Your task to perform on an android device: Open settings on Google Maps Image 0: 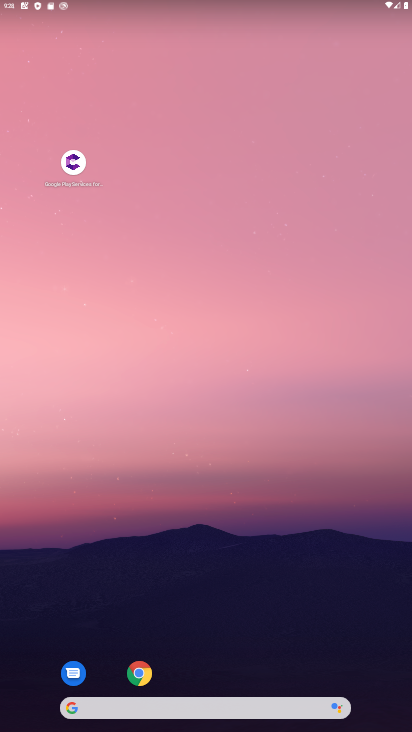
Step 0: drag from (312, 631) to (295, 0)
Your task to perform on an android device: Open settings on Google Maps Image 1: 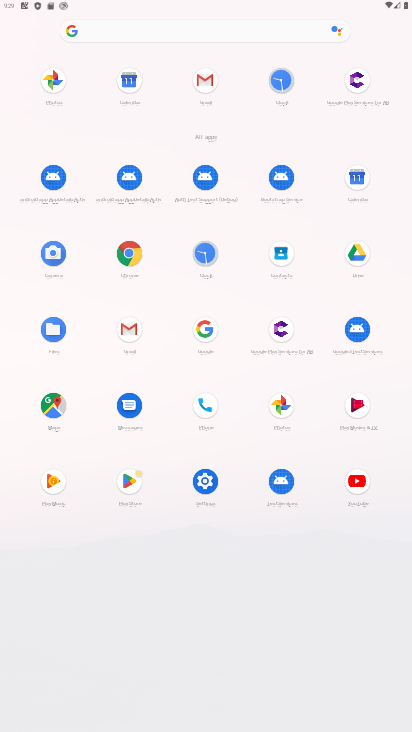
Step 1: click (212, 473)
Your task to perform on an android device: Open settings on Google Maps Image 2: 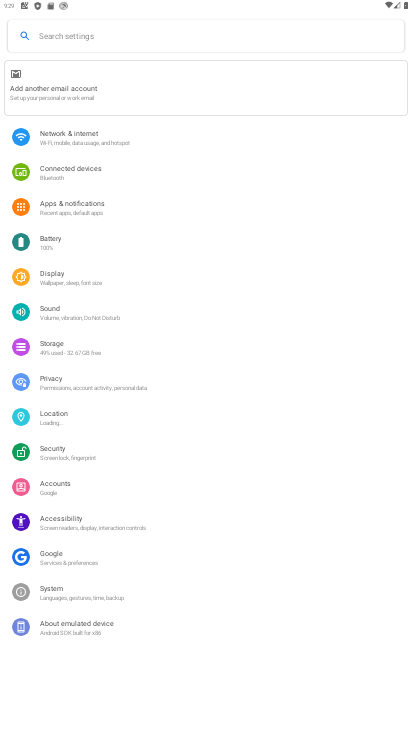
Step 2: press home button
Your task to perform on an android device: Open settings on Google Maps Image 3: 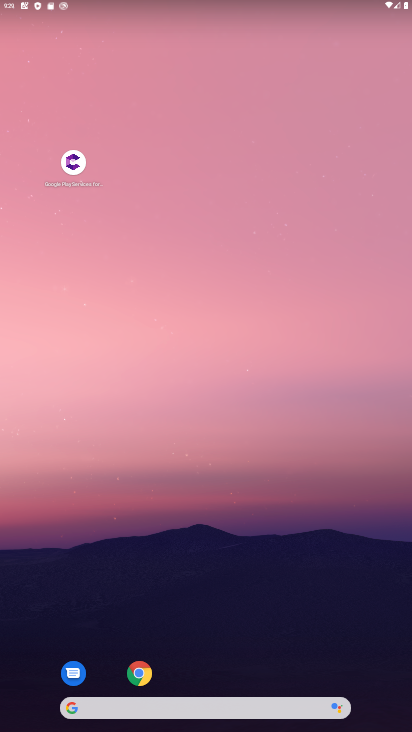
Step 3: drag from (44, 443) to (384, 552)
Your task to perform on an android device: Open settings on Google Maps Image 4: 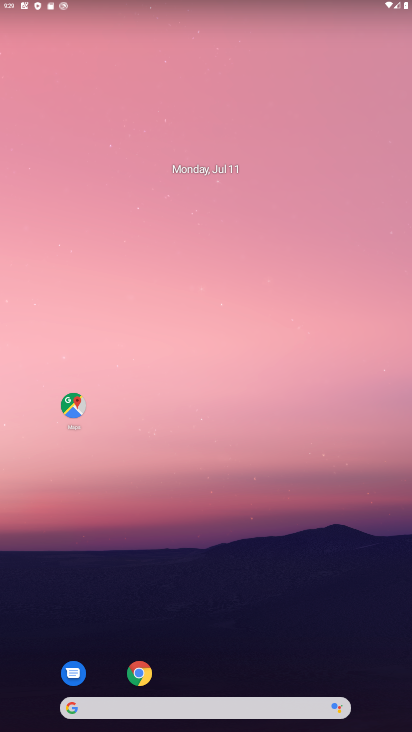
Step 4: click (80, 397)
Your task to perform on an android device: Open settings on Google Maps Image 5: 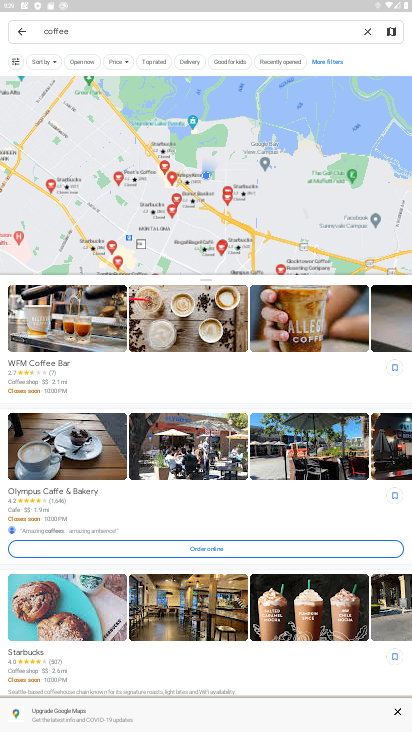
Step 5: click (24, 25)
Your task to perform on an android device: Open settings on Google Maps Image 6: 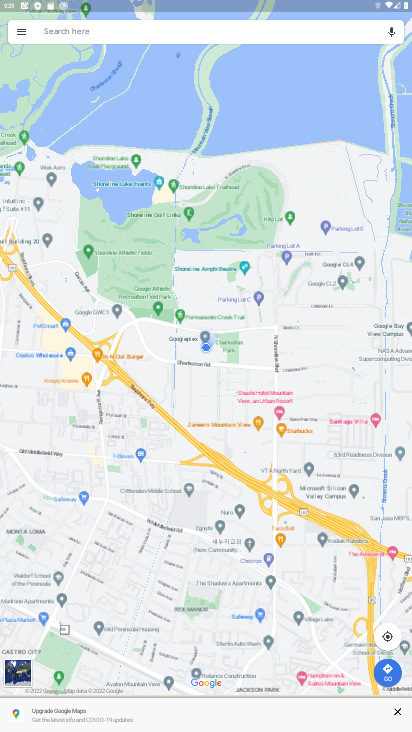
Step 6: click (22, 23)
Your task to perform on an android device: Open settings on Google Maps Image 7: 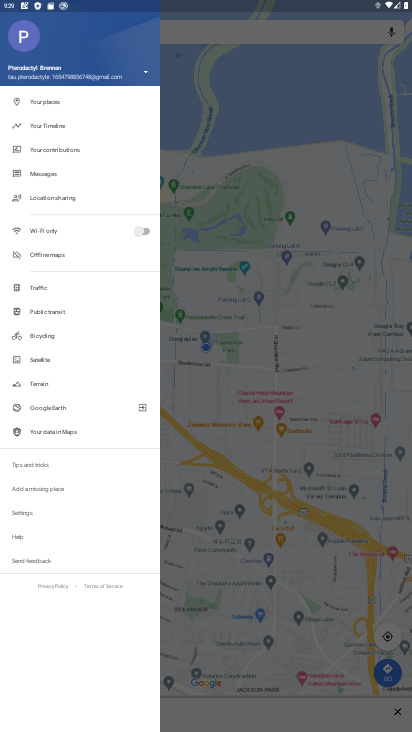
Step 7: click (31, 511)
Your task to perform on an android device: Open settings on Google Maps Image 8: 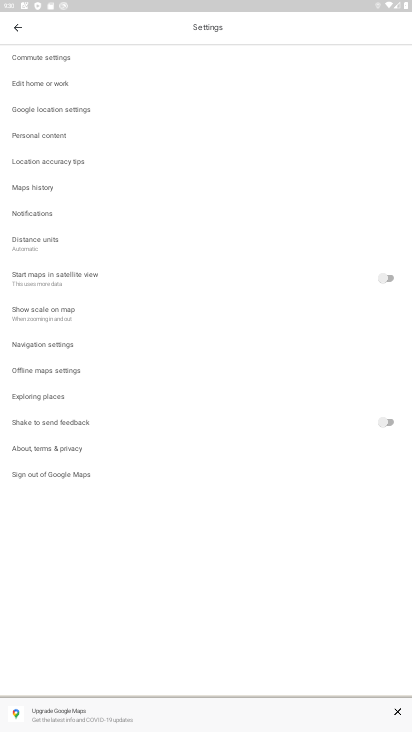
Step 8: task complete